Your task to perform on an android device: open the mobile data screen to see how much data has been used Image 0: 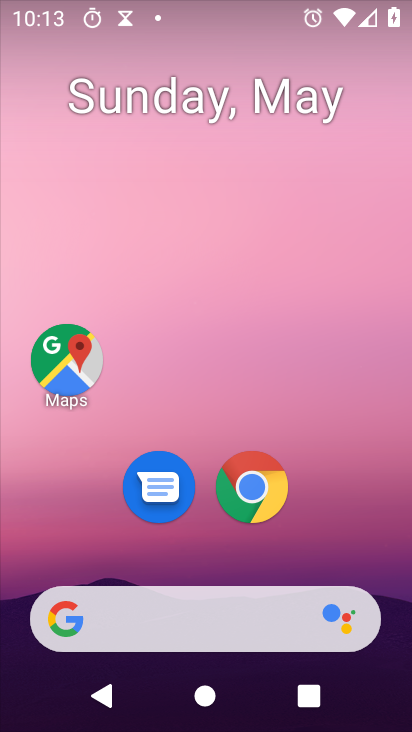
Step 0: drag from (317, 544) to (316, 172)
Your task to perform on an android device: open the mobile data screen to see how much data has been used Image 1: 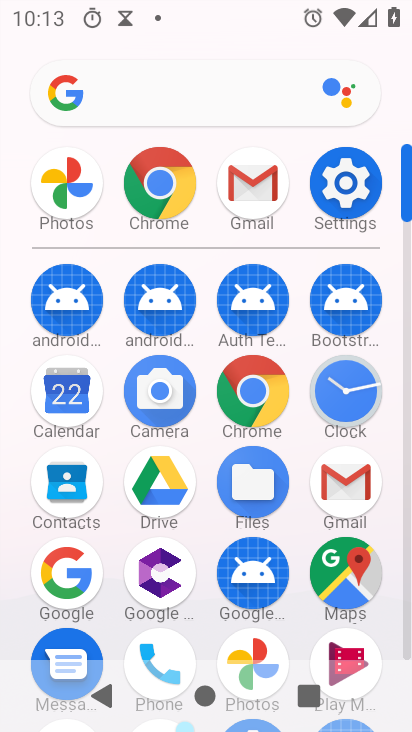
Step 1: click (357, 210)
Your task to perform on an android device: open the mobile data screen to see how much data has been used Image 2: 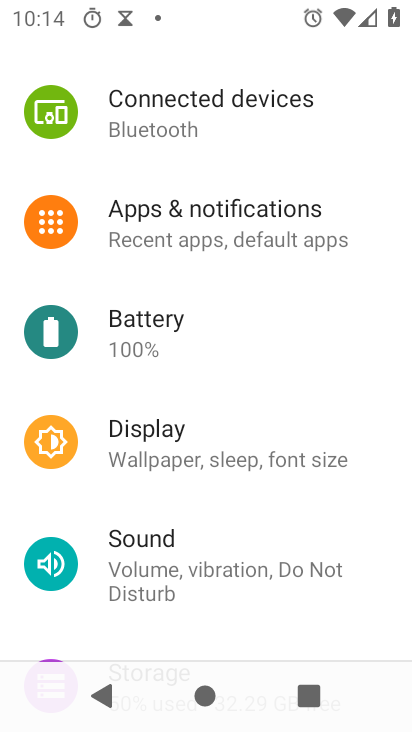
Step 2: drag from (239, 259) to (269, 590)
Your task to perform on an android device: open the mobile data screen to see how much data has been used Image 3: 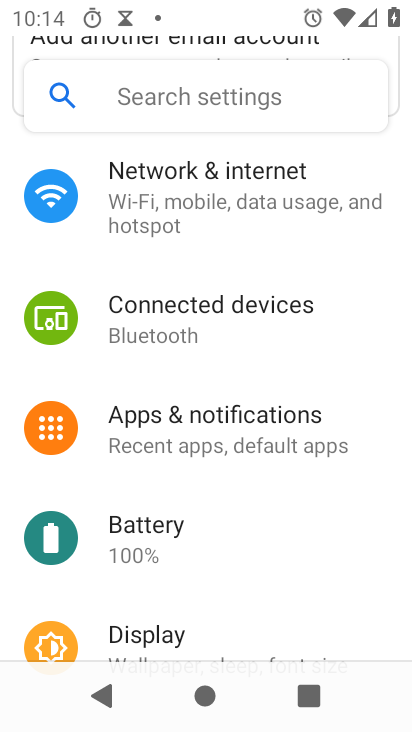
Step 3: drag from (246, 270) to (289, 563)
Your task to perform on an android device: open the mobile data screen to see how much data has been used Image 4: 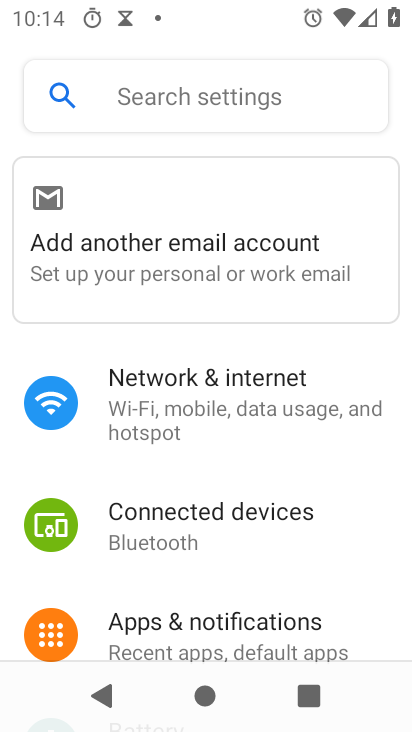
Step 4: click (195, 387)
Your task to perform on an android device: open the mobile data screen to see how much data has been used Image 5: 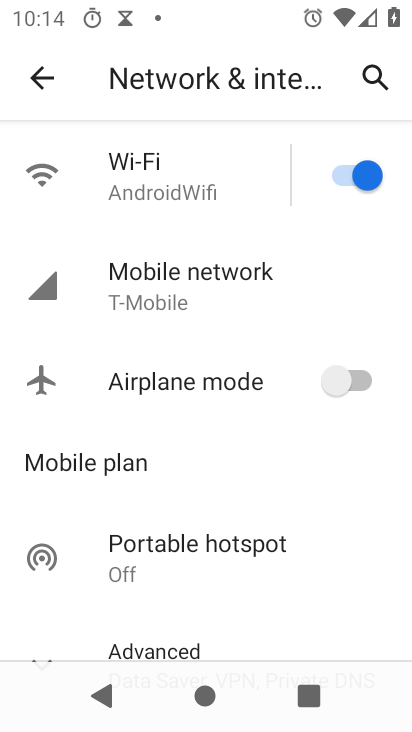
Step 5: click (196, 284)
Your task to perform on an android device: open the mobile data screen to see how much data has been used Image 6: 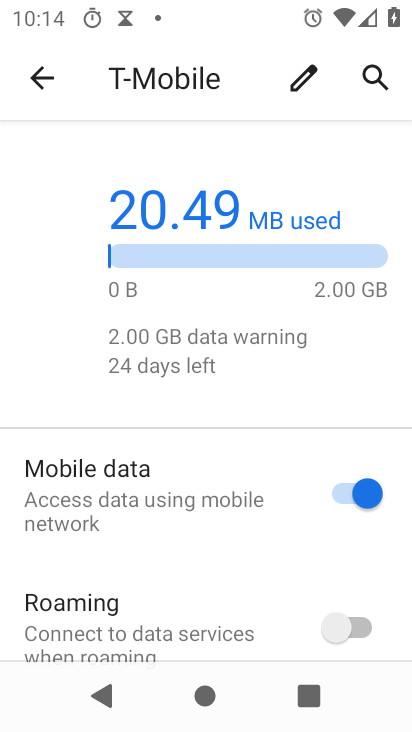
Step 6: drag from (118, 580) to (203, 170)
Your task to perform on an android device: open the mobile data screen to see how much data has been used Image 7: 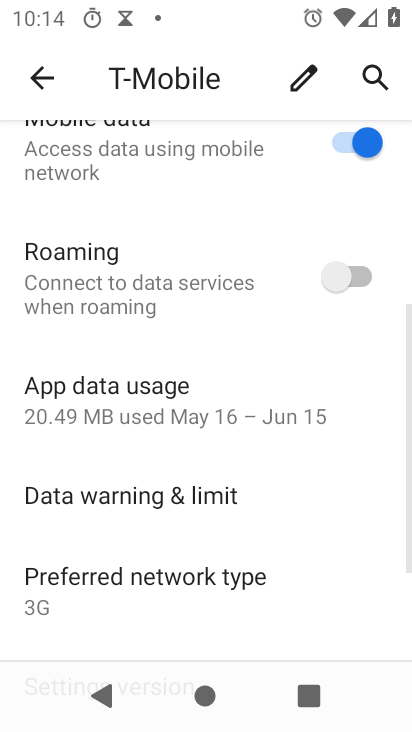
Step 7: drag from (203, 170) to (147, 725)
Your task to perform on an android device: open the mobile data screen to see how much data has been used Image 8: 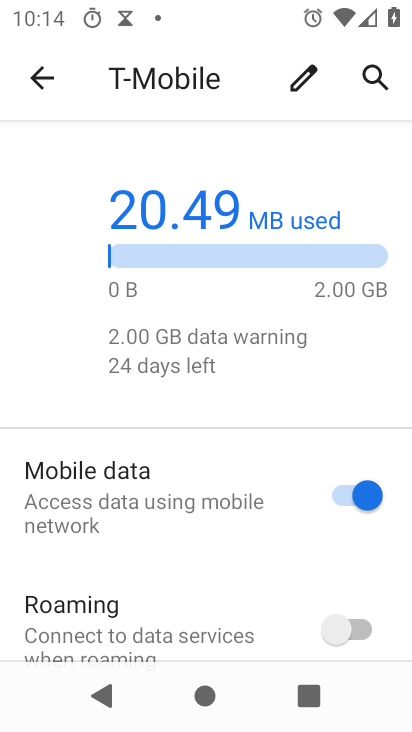
Step 8: click (229, 319)
Your task to perform on an android device: open the mobile data screen to see how much data has been used Image 9: 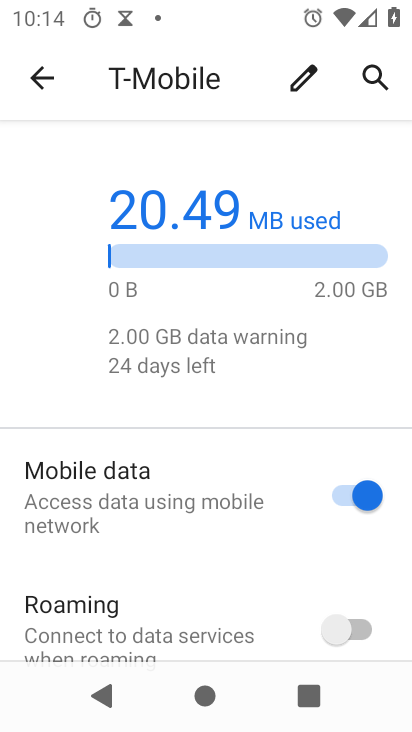
Step 9: task complete